Your task to perform on an android device: Search for seafood restaurants on Google Maps Image 0: 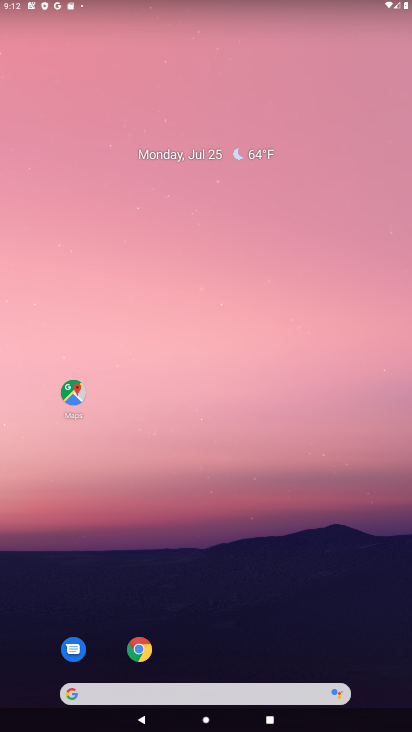
Step 0: click (80, 395)
Your task to perform on an android device: Search for seafood restaurants on Google Maps Image 1: 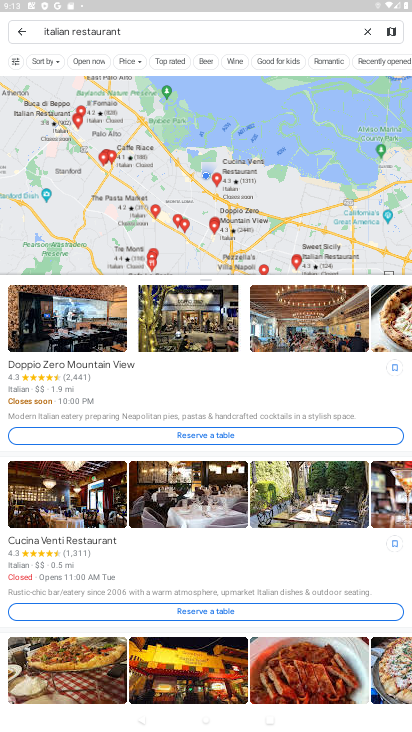
Step 1: click (370, 31)
Your task to perform on an android device: Search for seafood restaurants on Google Maps Image 2: 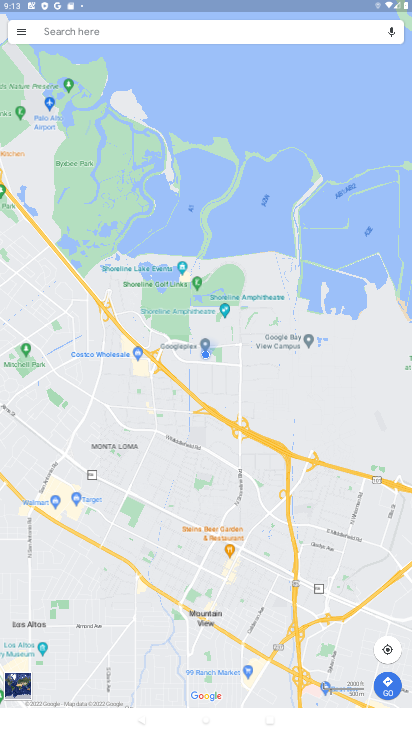
Step 2: click (161, 35)
Your task to perform on an android device: Search for seafood restaurants on Google Maps Image 3: 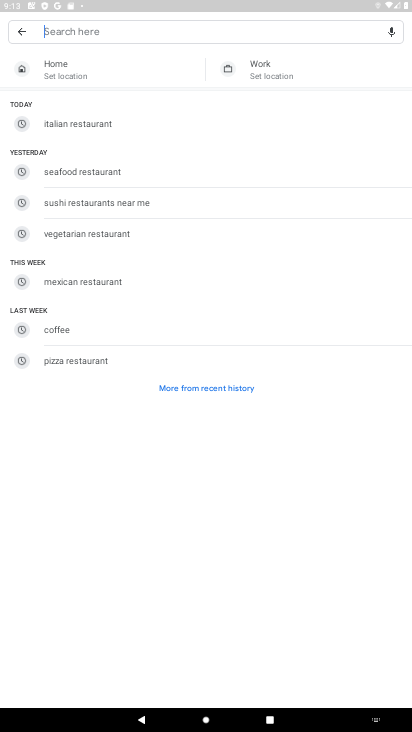
Step 3: click (93, 171)
Your task to perform on an android device: Search for seafood restaurants on Google Maps Image 4: 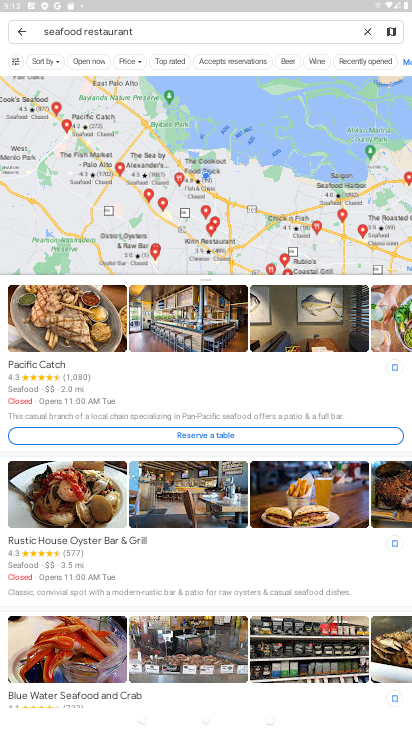
Step 4: task complete